Your task to perform on an android device: Open Google Image 0: 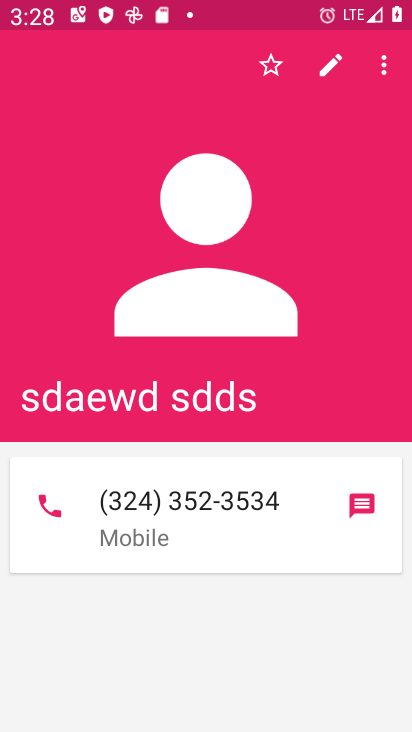
Step 0: press home button
Your task to perform on an android device: Open Google Image 1: 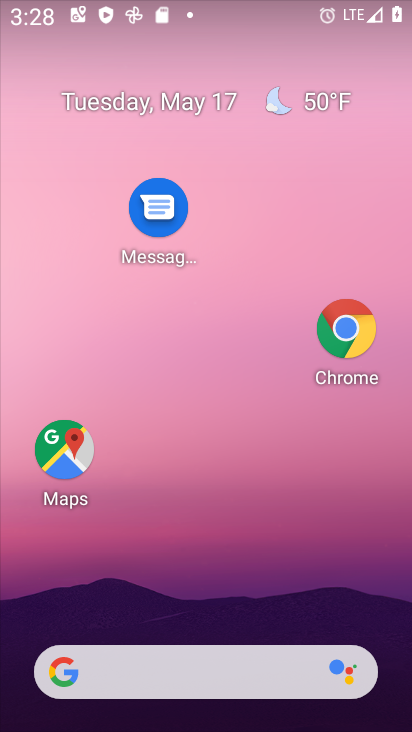
Step 1: click (360, 349)
Your task to perform on an android device: Open Google Image 2: 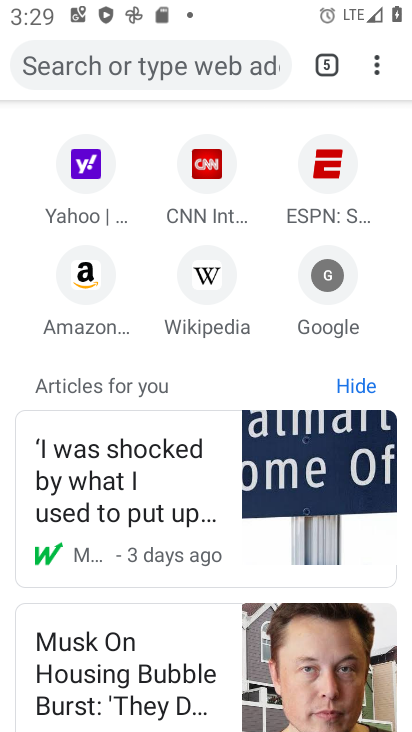
Step 2: click (189, 68)
Your task to perform on an android device: Open Google Image 3: 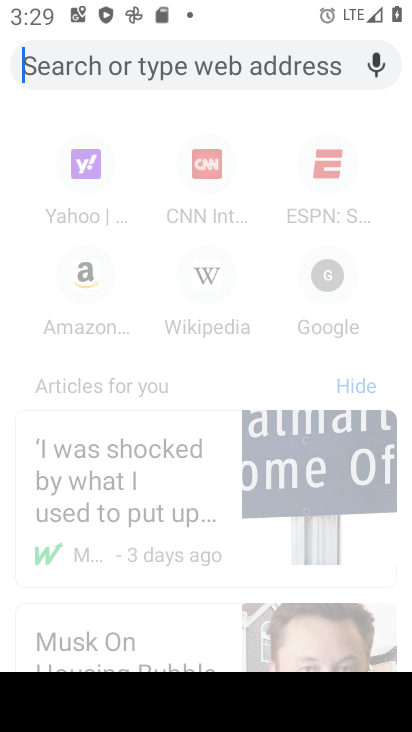
Step 3: type "google.com"
Your task to perform on an android device: Open Google Image 4: 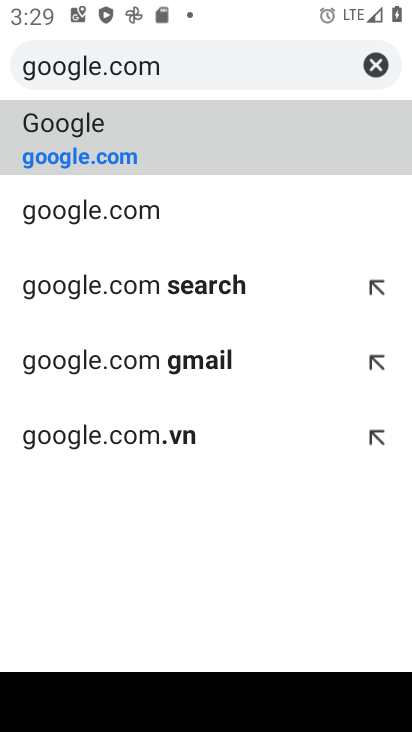
Step 4: click (170, 223)
Your task to perform on an android device: Open Google Image 5: 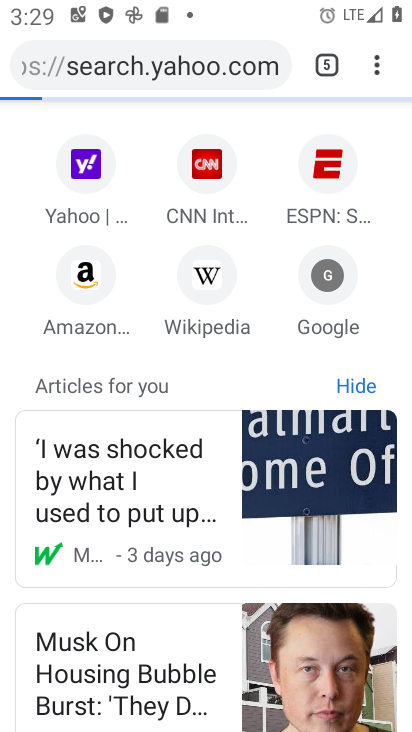
Step 5: task complete